Your task to perform on an android device: delete browsing data in the chrome app Image 0: 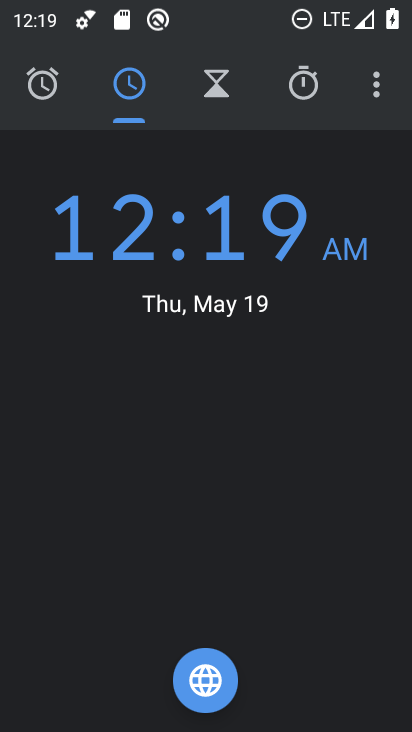
Step 0: press home button
Your task to perform on an android device: delete browsing data in the chrome app Image 1: 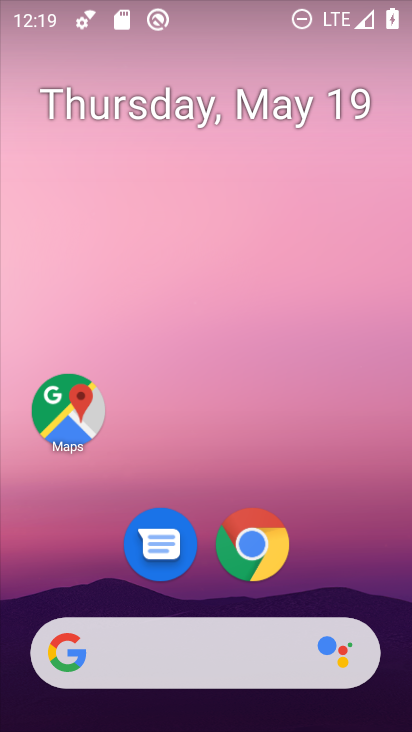
Step 1: click (259, 514)
Your task to perform on an android device: delete browsing data in the chrome app Image 2: 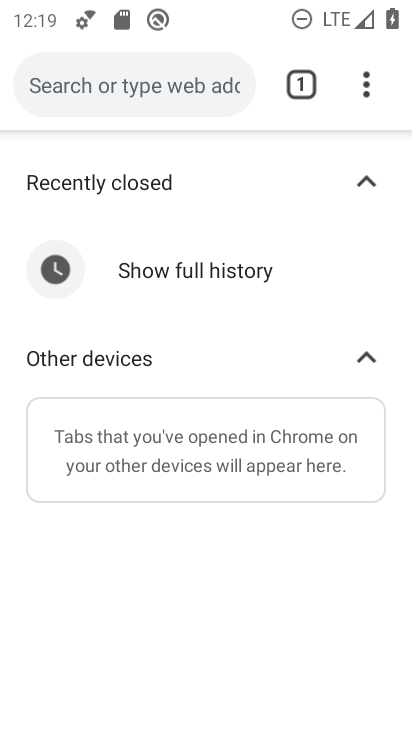
Step 2: click (373, 86)
Your task to perform on an android device: delete browsing data in the chrome app Image 3: 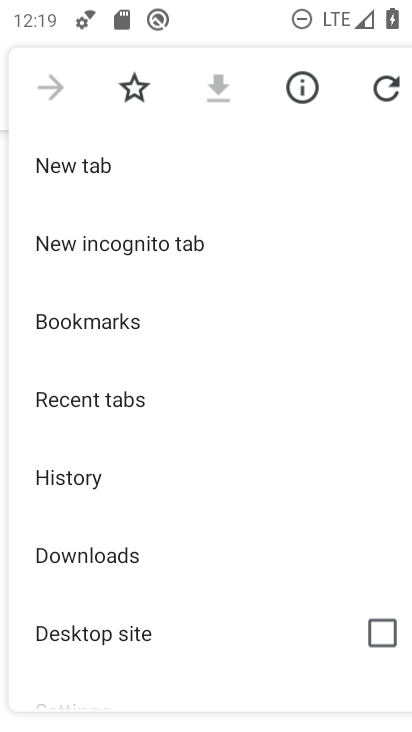
Step 3: drag from (161, 593) to (106, 205)
Your task to perform on an android device: delete browsing data in the chrome app Image 4: 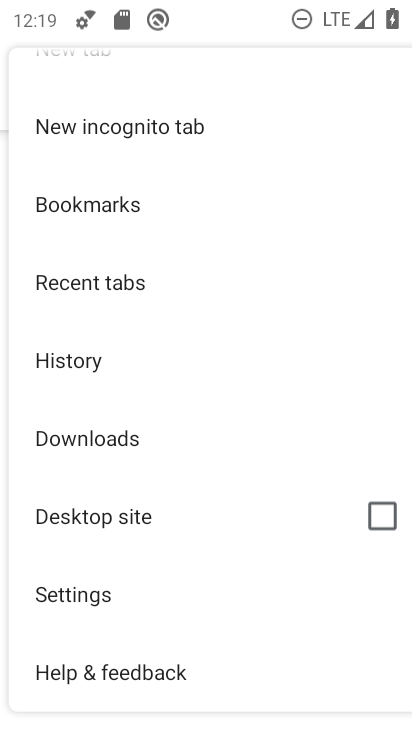
Step 4: click (66, 620)
Your task to perform on an android device: delete browsing data in the chrome app Image 5: 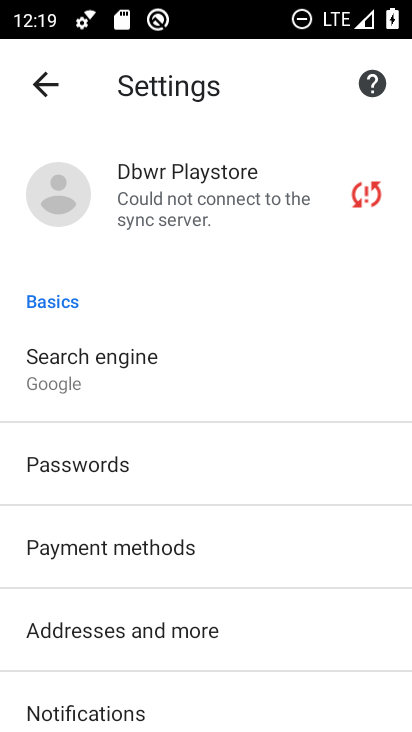
Step 5: click (59, 94)
Your task to perform on an android device: delete browsing data in the chrome app Image 6: 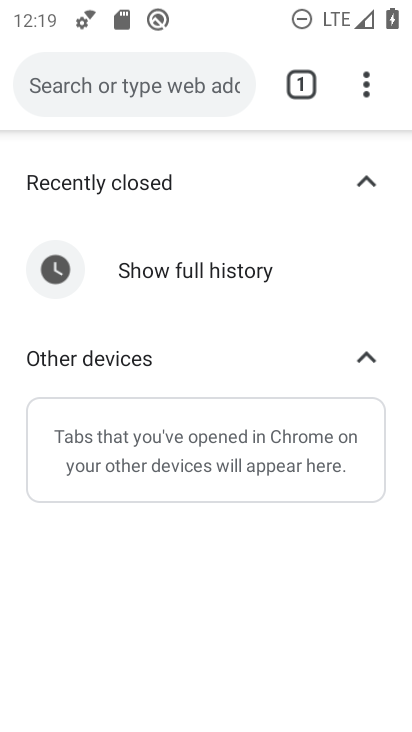
Step 6: press back button
Your task to perform on an android device: delete browsing data in the chrome app Image 7: 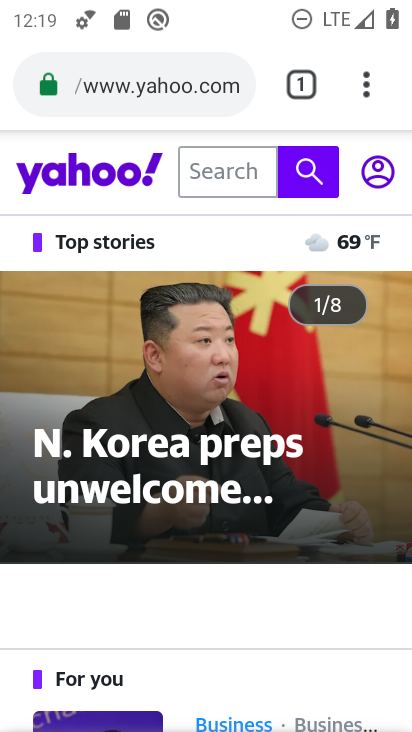
Step 7: click (372, 76)
Your task to perform on an android device: delete browsing data in the chrome app Image 8: 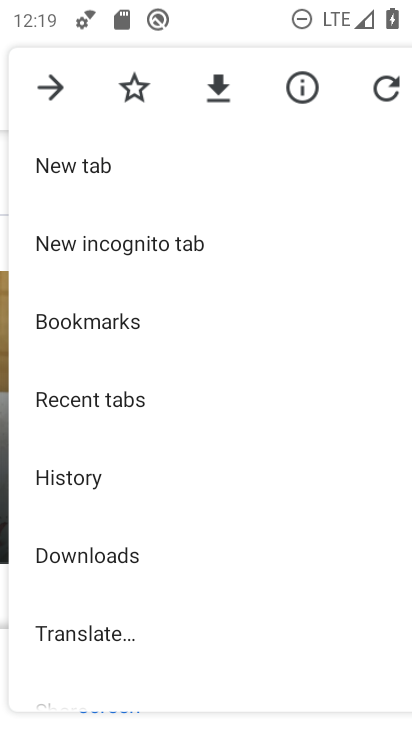
Step 8: click (163, 458)
Your task to perform on an android device: delete browsing data in the chrome app Image 9: 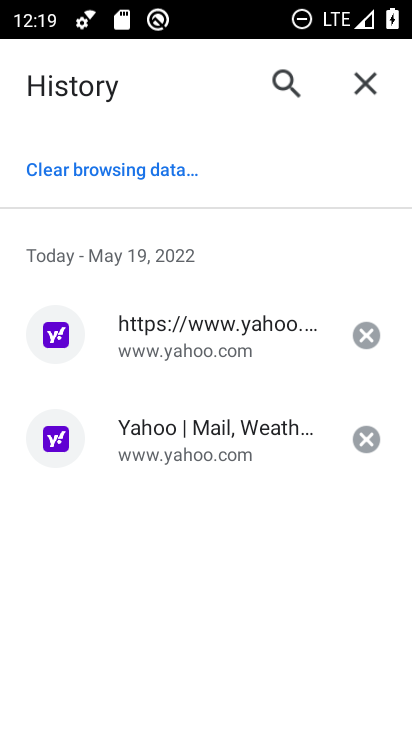
Step 9: click (175, 168)
Your task to perform on an android device: delete browsing data in the chrome app Image 10: 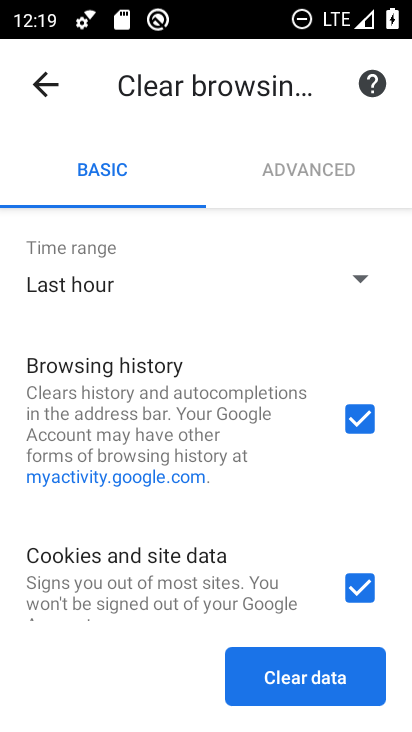
Step 10: click (284, 694)
Your task to perform on an android device: delete browsing data in the chrome app Image 11: 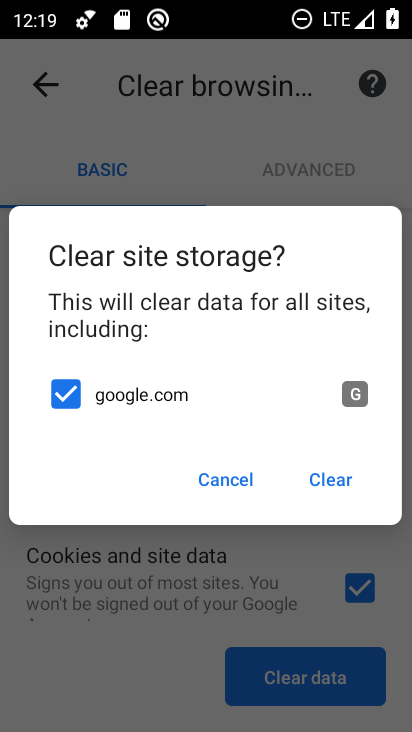
Step 11: click (325, 479)
Your task to perform on an android device: delete browsing data in the chrome app Image 12: 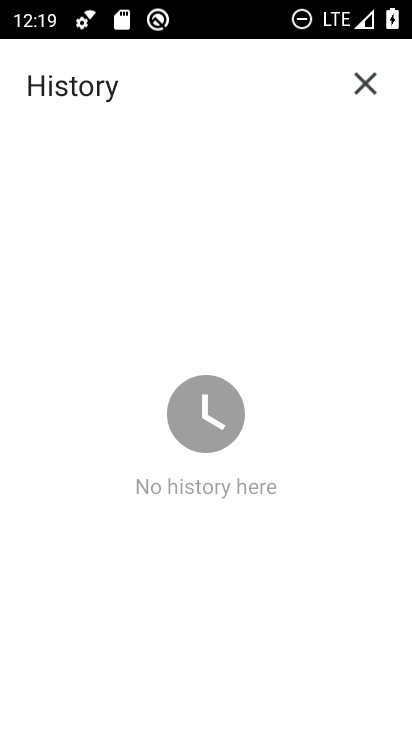
Step 12: task complete